Your task to perform on an android device: Turn off the flashlight Image 0: 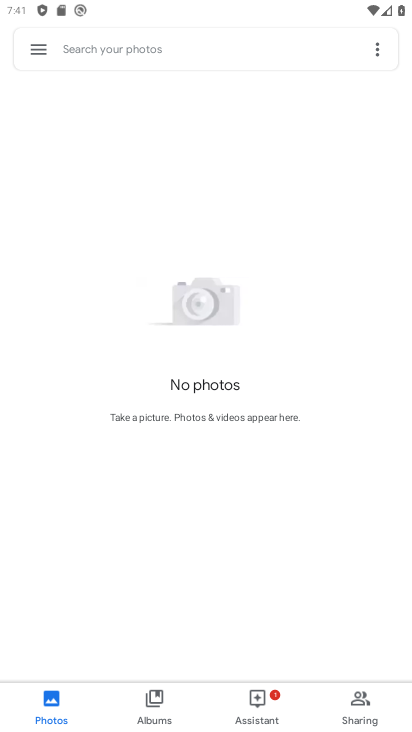
Step 0: press home button
Your task to perform on an android device: Turn off the flashlight Image 1: 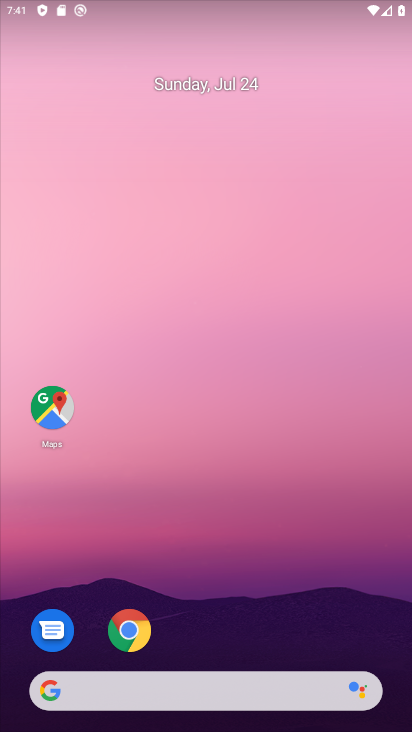
Step 1: drag from (190, 619) to (194, 100)
Your task to perform on an android device: Turn off the flashlight Image 2: 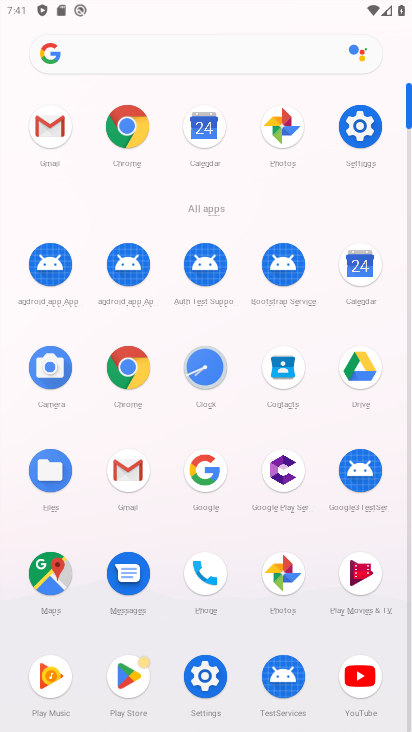
Step 2: click (373, 132)
Your task to perform on an android device: Turn off the flashlight Image 3: 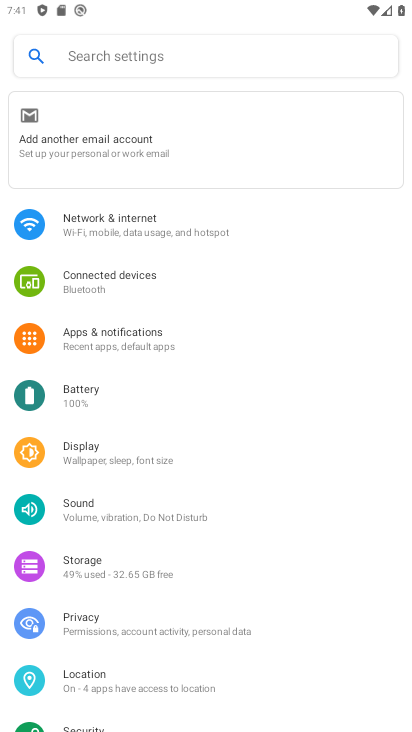
Step 3: task complete